Your task to perform on an android device: Go to Maps Image 0: 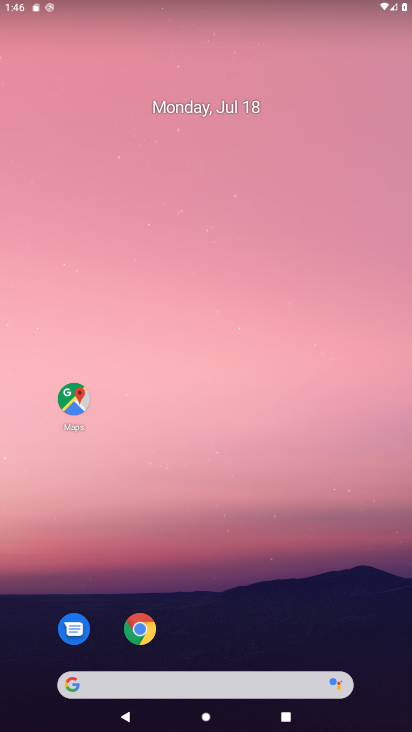
Step 0: click (84, 393)
Your task to perform on an android device: Go to Maps Image 1: 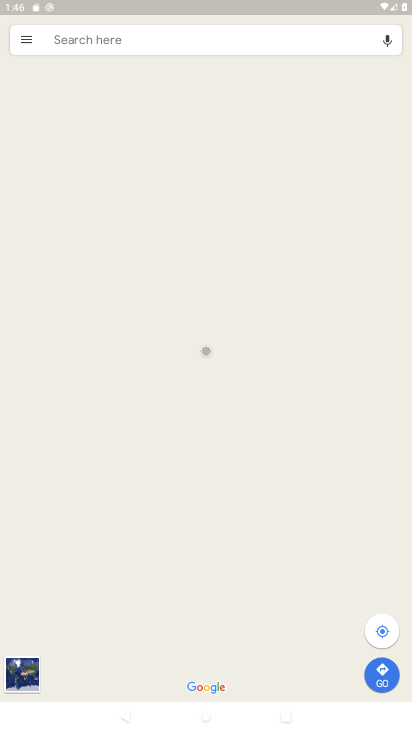
Step 1: task complete